Your task to perform on an android device: turn off translation in the chrome app Image 0: 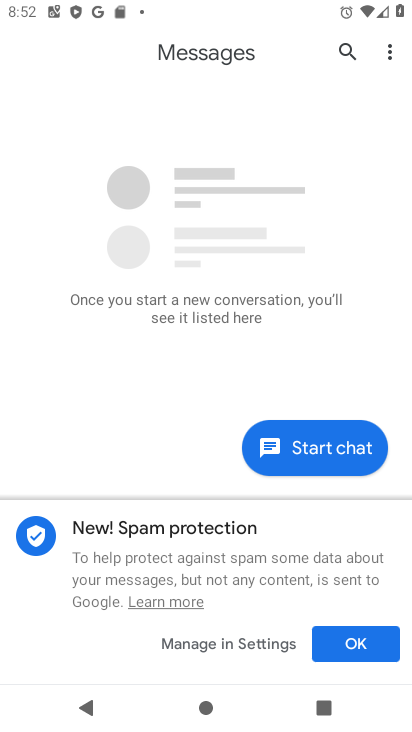
Step 0: press back button
Your task to perform on an android device: turn off translation in the chrome app Image 1: 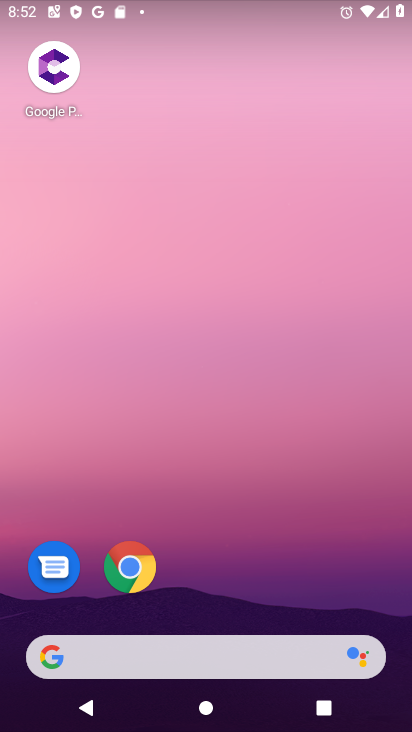
Step 1: drag from (270, 548) to (242, 7)
Your task to perform on an android device: turn off translation in the chrome app Image 2: 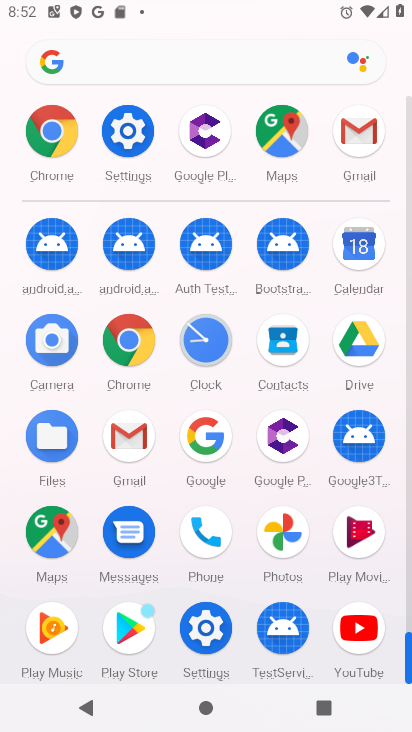
Step 2: drag from (3, 541) to (22, 213)
Your task to perform on an android device: turn off translation in the chrome app Image 3: 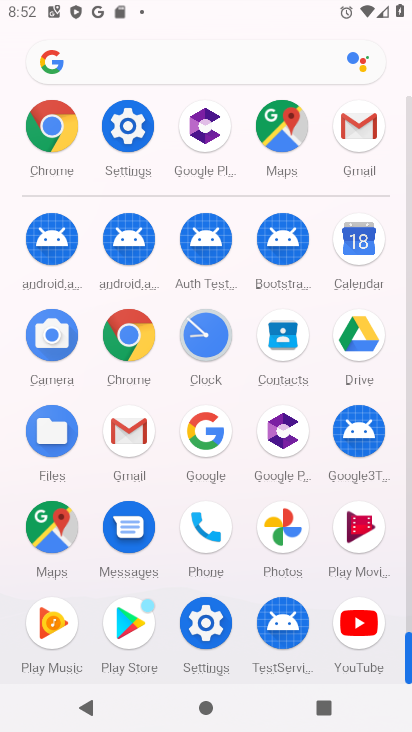
Step 3: click (131, 334)
Your task to perform on an android device: turn off translation in the chrome app Image 4: 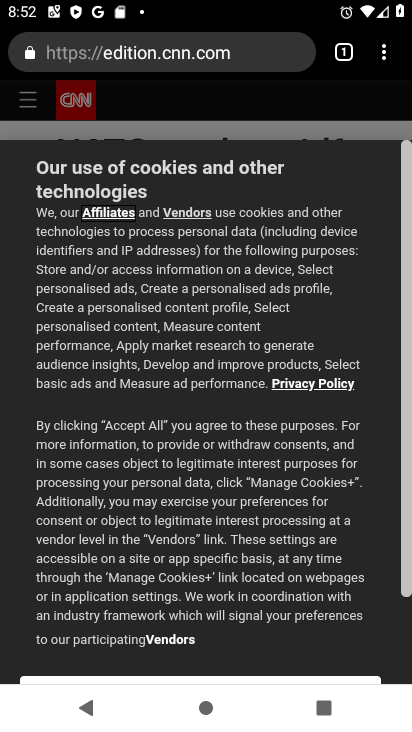
Step 4: drag from (389, 50) to (245, 575)
Your task to perform on an android device: turn off translation in the chrome app Image 5: 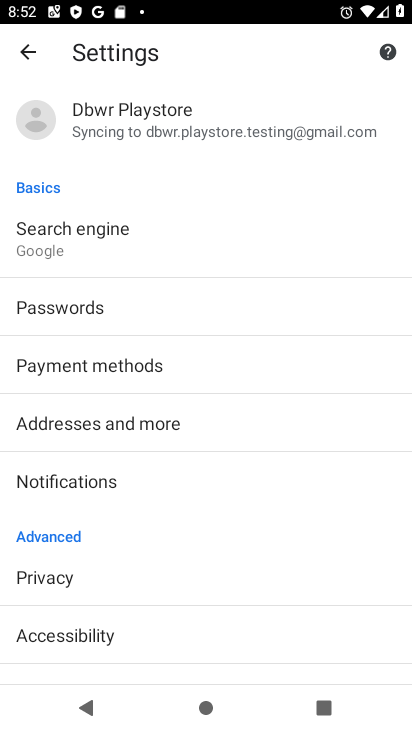
Step 5: drag from (195, 713) to (219, 275)
Your task to perform on an android device: turn off translation in the chrome app Image 6: 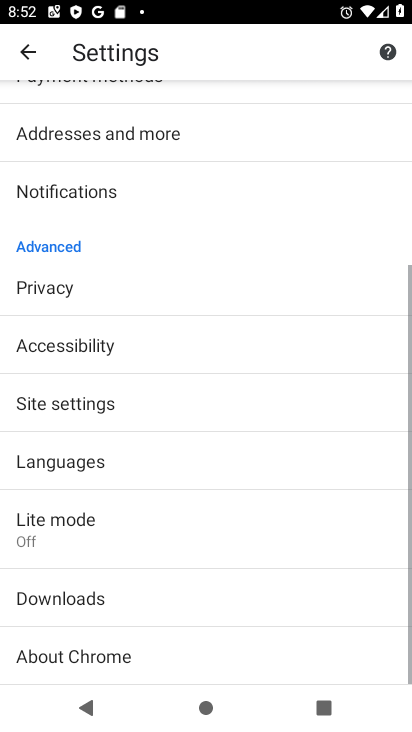
Step 6: drag from (172, 619) to (225, 221)
Your task to perform on an android device: turn off translation in the chrome app Image 7: 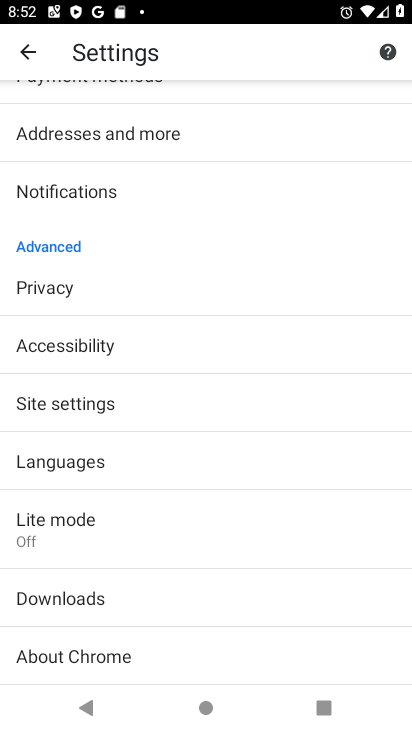
Step 7: drag from (226, 548) to (247, 163)
Your task to perform on an android device: turn off translation in the chrome app Image 8: 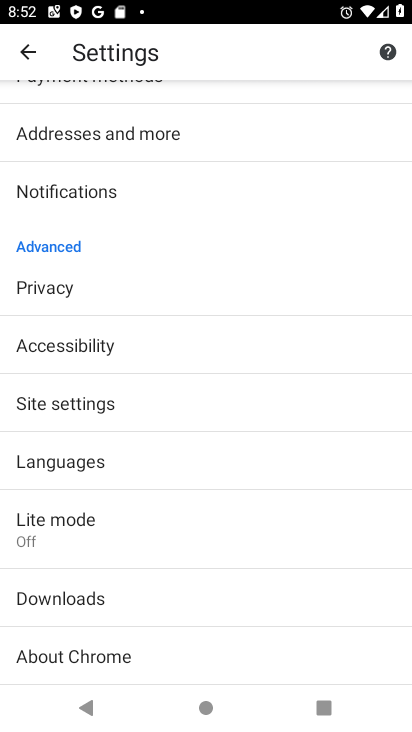
Step 8: click (109, 461)
Your task to perform on an android device: turn off translation in the chrome app Image 9: 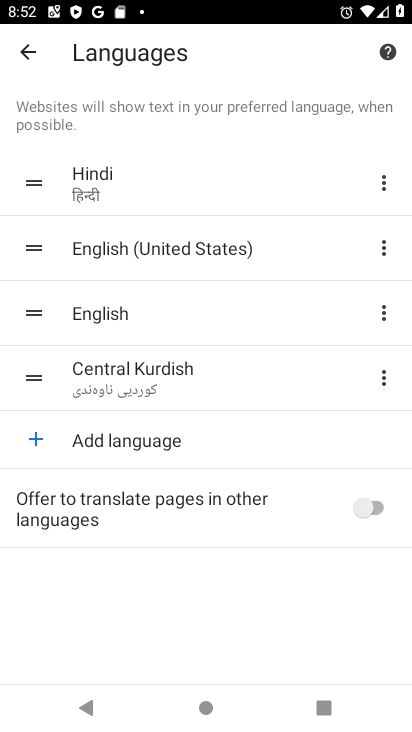
Step 9: task complete